Your task to perform on an android device: toggle show notifications on the lock screen Image 0: 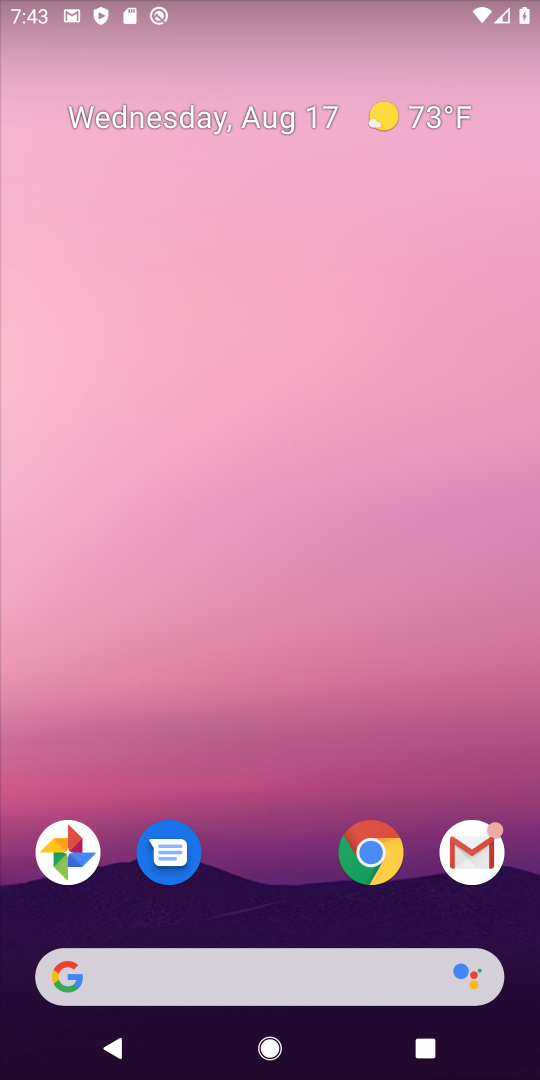
Step 0: drag from (273, 916) to (206, 289)
Your task to perform on an android device: toggle show notifications on the lock screen Image 1: 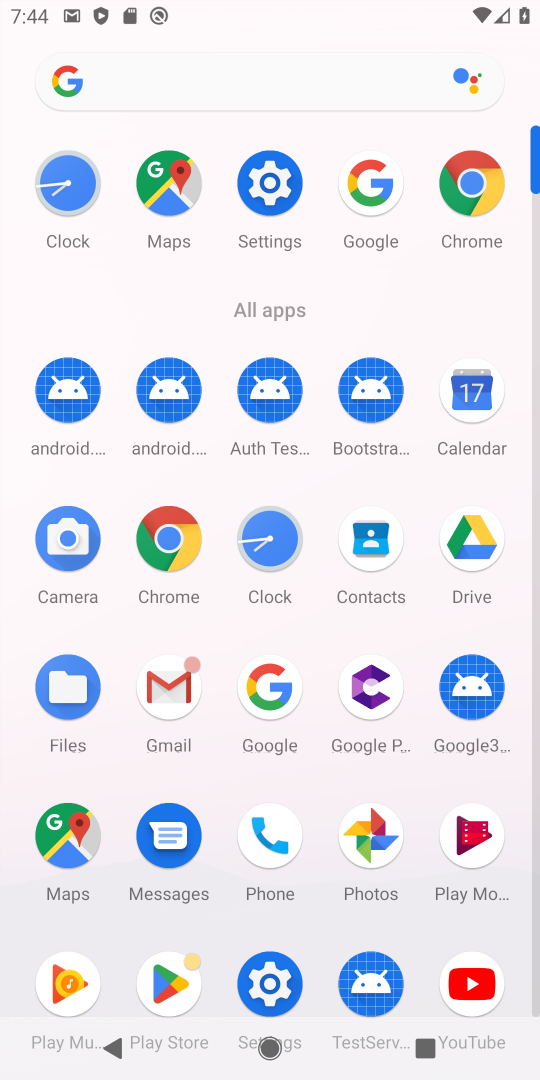
Step 1: click (261, 180)
Your task to perform on an android device: toggle show notifications on the lock screen Image 2: 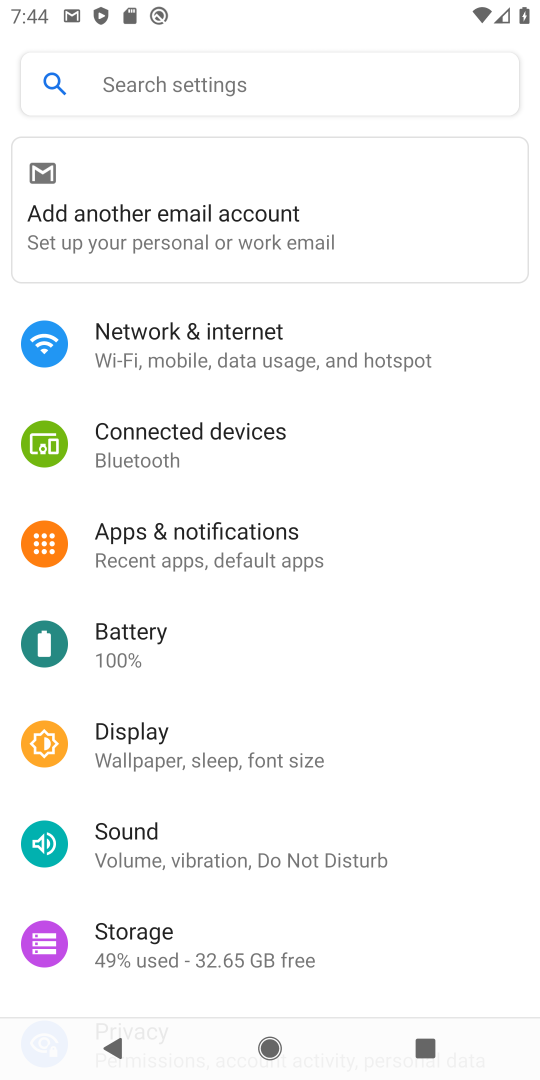
Step 2: click (199, 532)
Your task to perform on an android device: toggle show notifications on the lock screen Image 3: 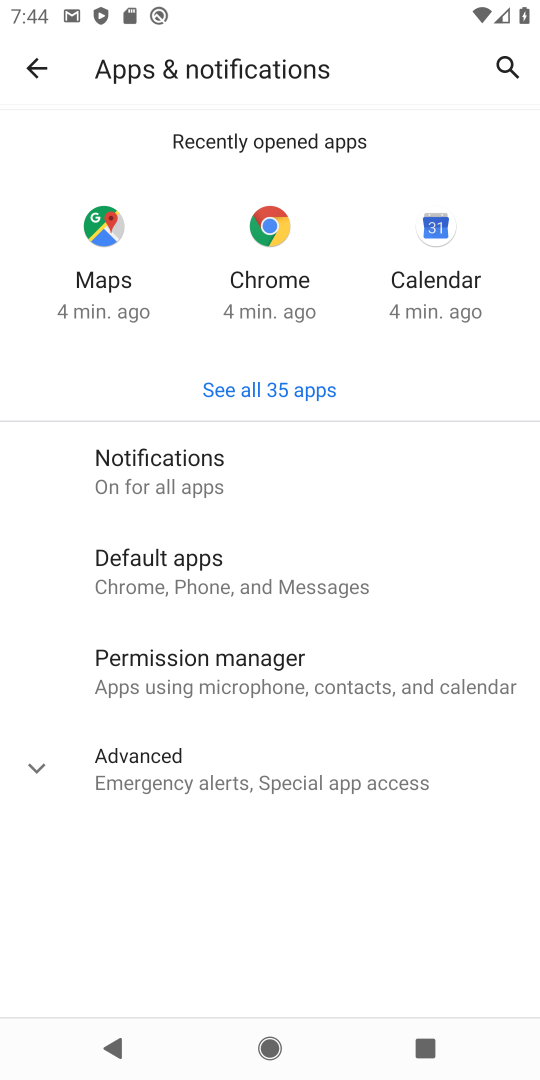
Step 3: click (180, 454)
Your task to perform on an android device: toggle show notifications on the lock screen Image 4: 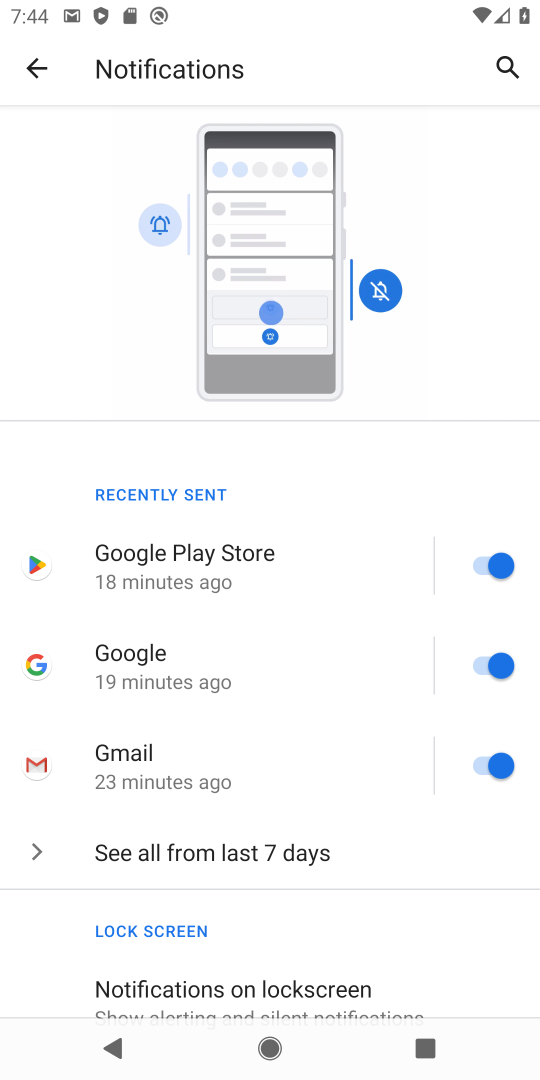
Step 4: drag from (374, 928) to (358, 644)
Your task to perform on an android device: toggle show notifications on the lock screen Image 5: 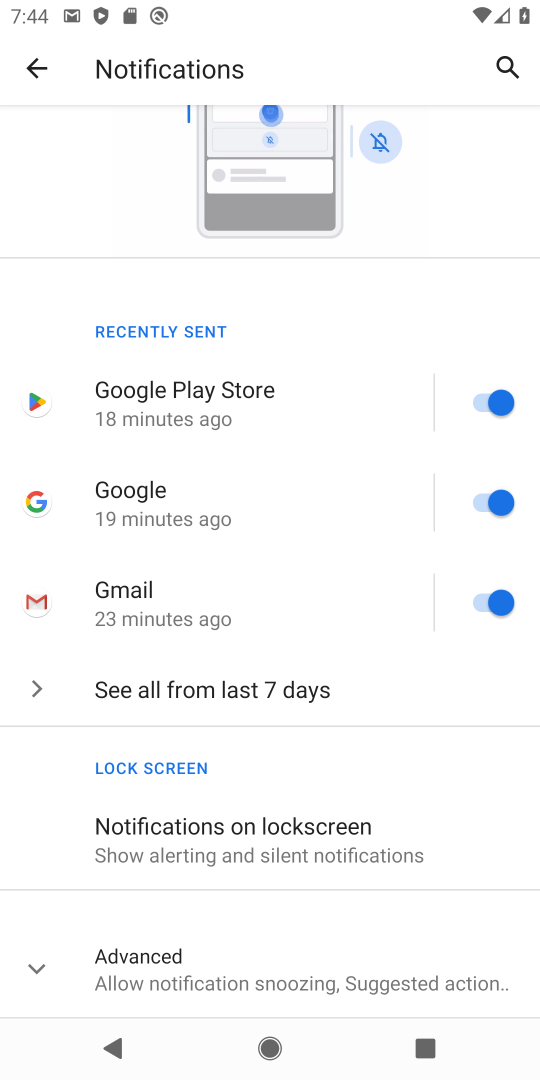
Step 5: click (233, 823)
Your task to perform on an android device: toggle show notifications on the lock screen Image 6: 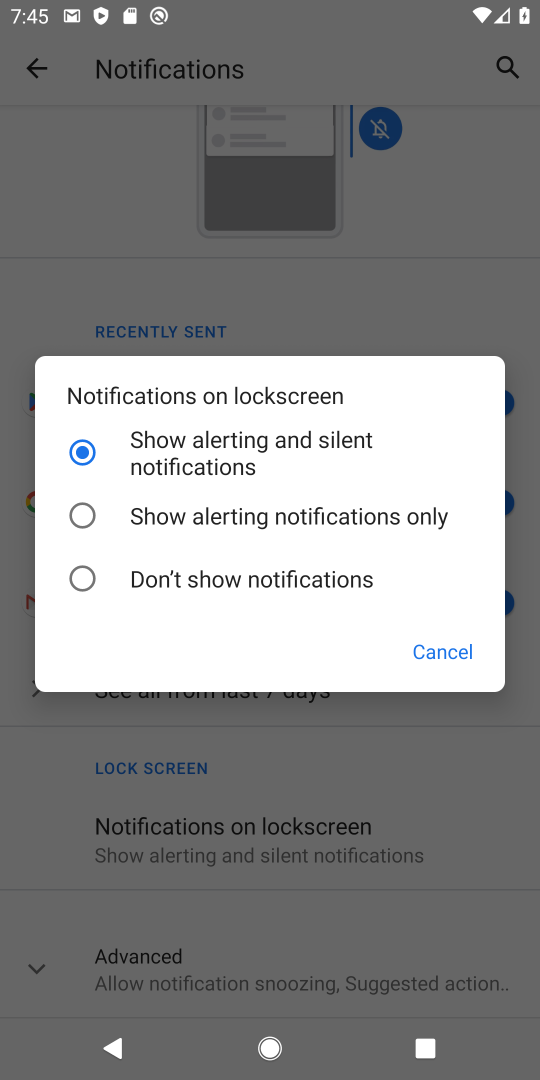
Step 6: click (76, 584)
Your task to perform on an android device: toggle show notifications on the lock screen Image 7: 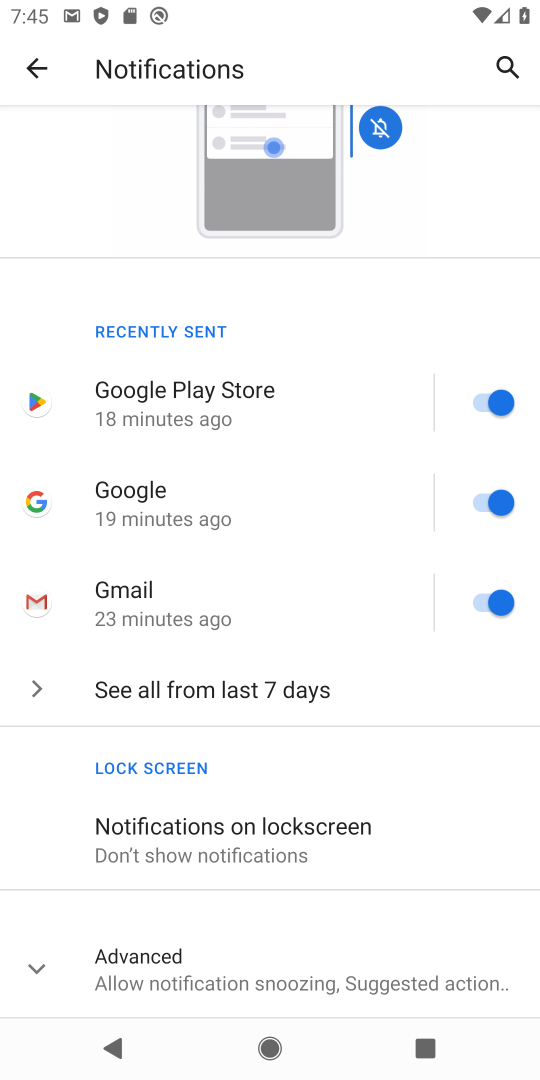
Step 7: task complete